Your task to perform on an android device: open app "Speedtest by Ookla" (install if not already installed) and go to login screen Image 0: 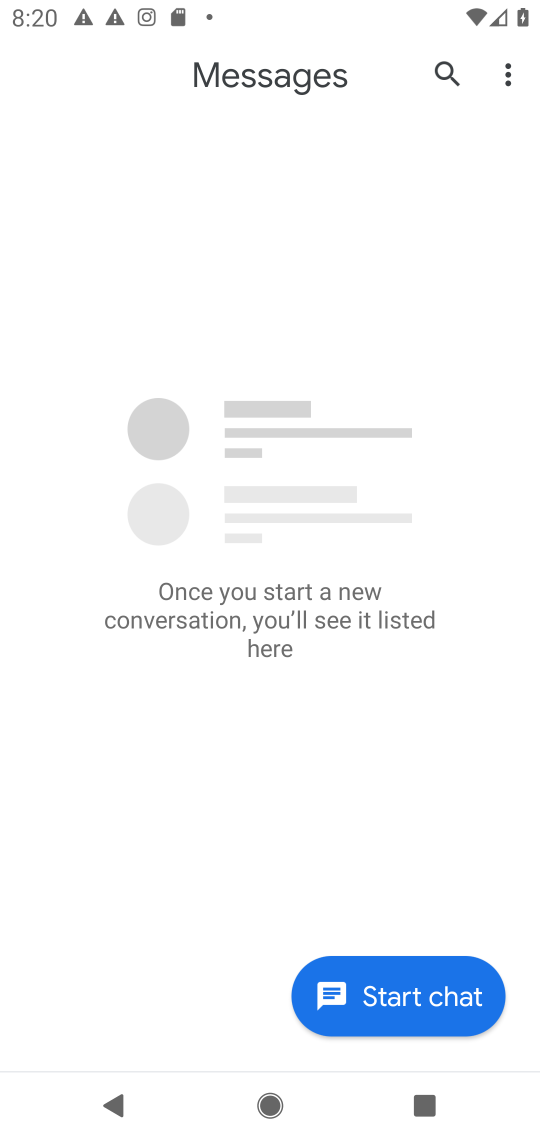
Step 0: press home button
Your task to perform on an android device: open app "Speedtest by Ookla" (install if not already installed) and go to login screen Image 1: 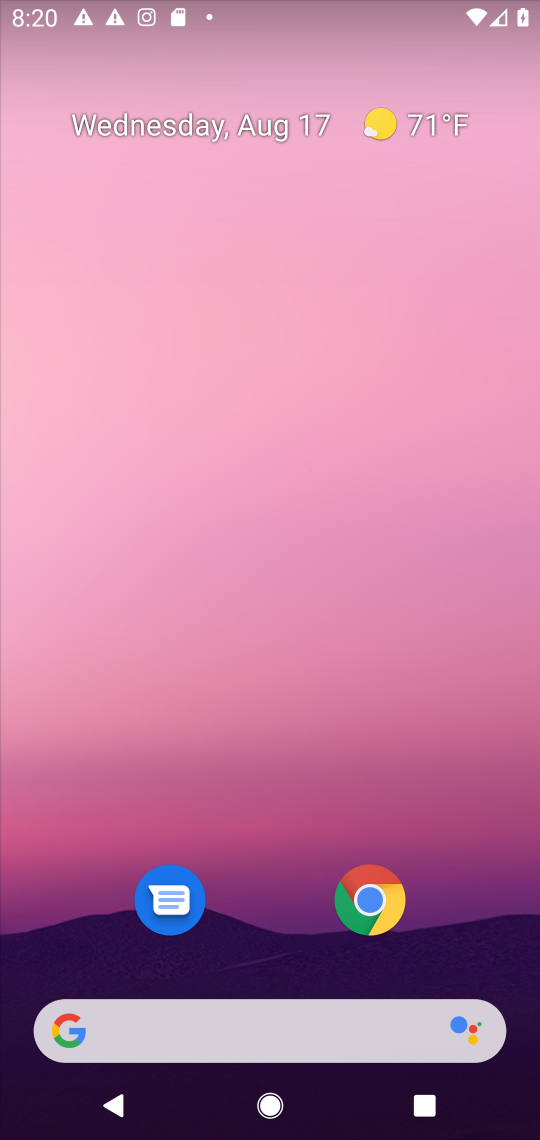
Step 1: drag from (247, 898) to (527, 285)
Your task to perform on an android device: open app "Speedtest by Ookla" (install if not already installed) and go to login screen Image 2: 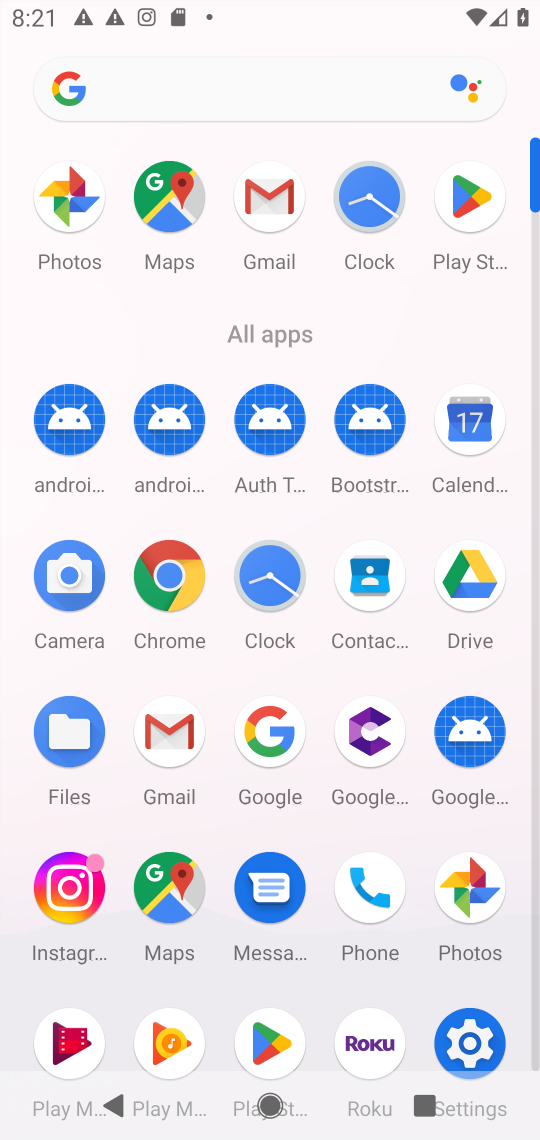
Step 2: click (463, 201)
Your task to perform on an android device: open app "Speedtest by Ookla" (install if not already installed) and go to login screen Image 3: 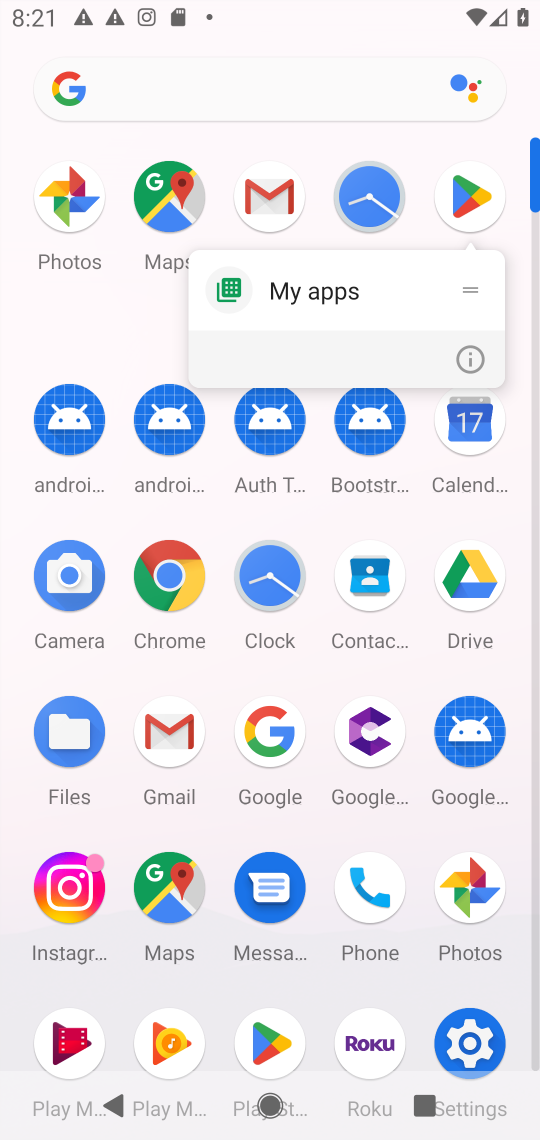
Step 3: click (463, 200)
Your task to perform on an android device: open app "Speedtest by Ookla" (install if not already installed) and go to login screen Image 4: 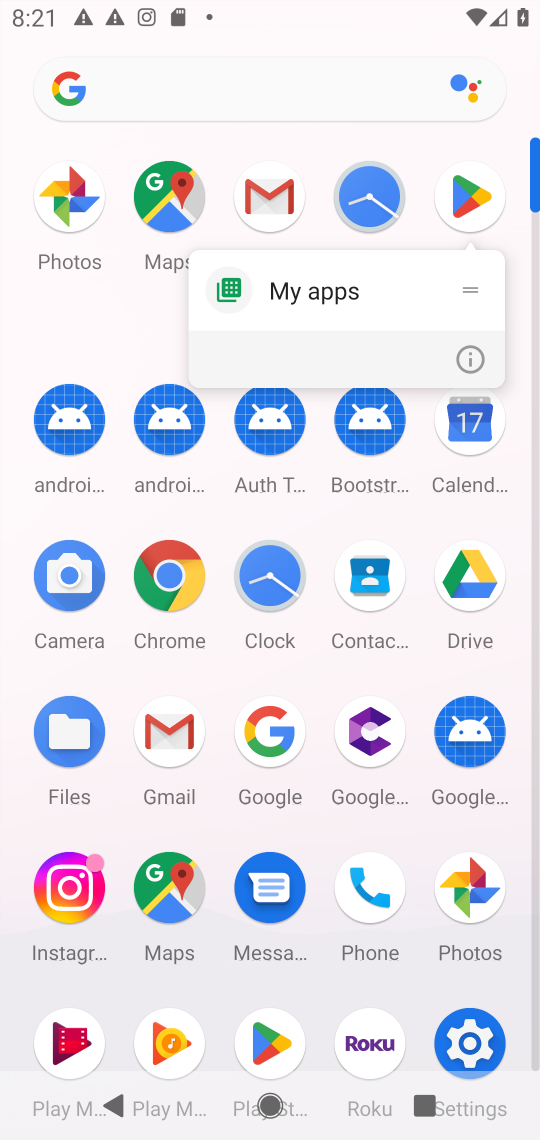
Step 4: click (463, 196)
Your task to perform on an android device: open app "Speedtest by Ookla" (install if not already installed) and go to login screen Image 5: 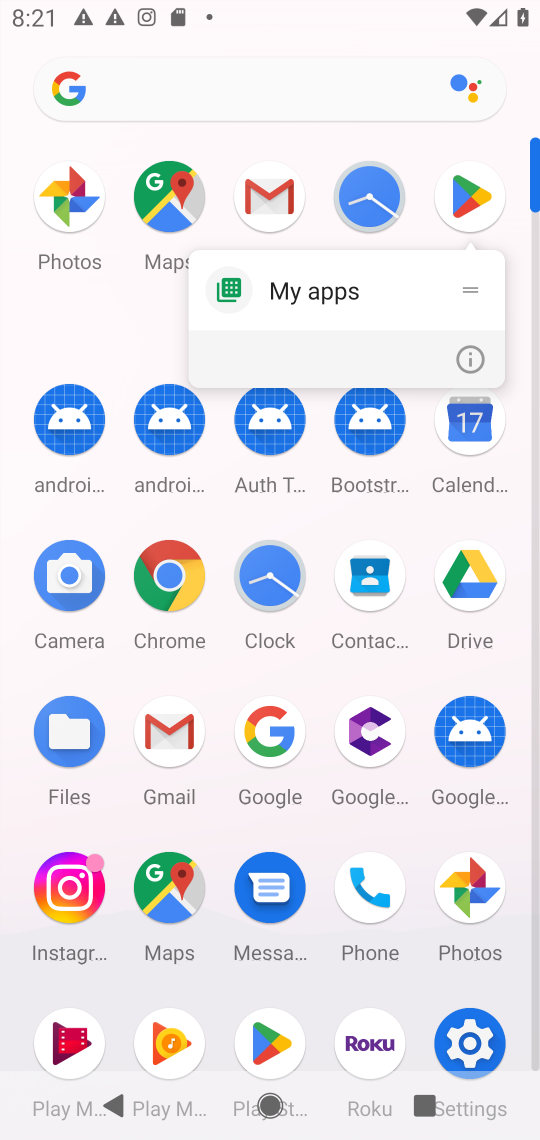
Step 5: click (463, 196)
Your task to perform on an android device: open app "Speedtest by Ookla" (install if not already installed) and go to login screen Image 6: 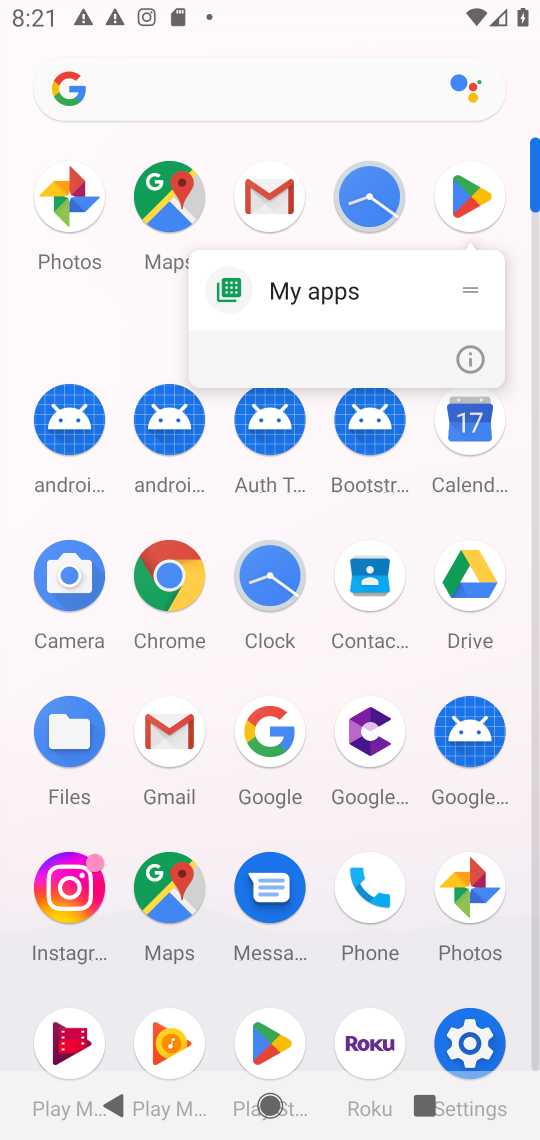
Step 6: click (463, 196)
Your task to perform on an android device: open app "Speedtest by Ookla" (install if not already installed) and go to login screen Image 7: 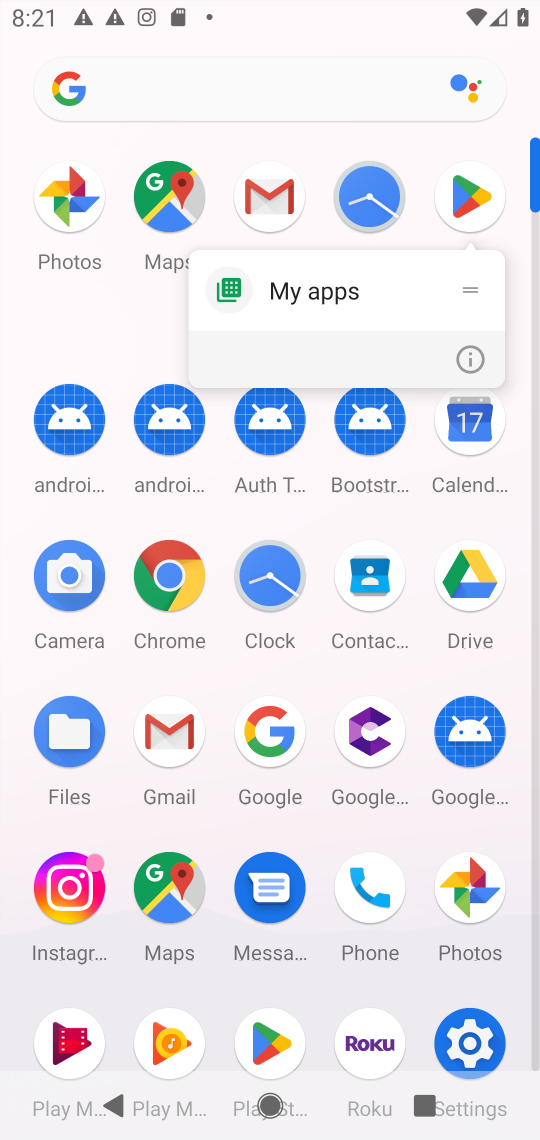
Step 7: click (462, 184)
Your task to perform on an android device: open app "Speedtest by Ookla" (install if not already installed) and go to login screen Image 8: 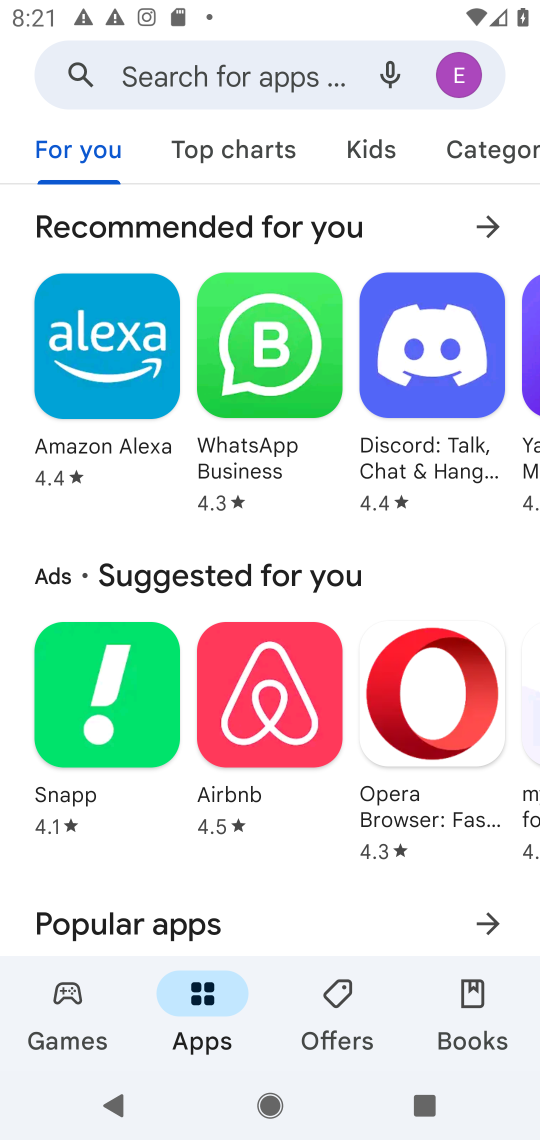
Step 8: click (244, 80)
Your task to perform on an android device: open app "Speedtest by Ookla" (install if not already installed) and go to login screen Image 9: 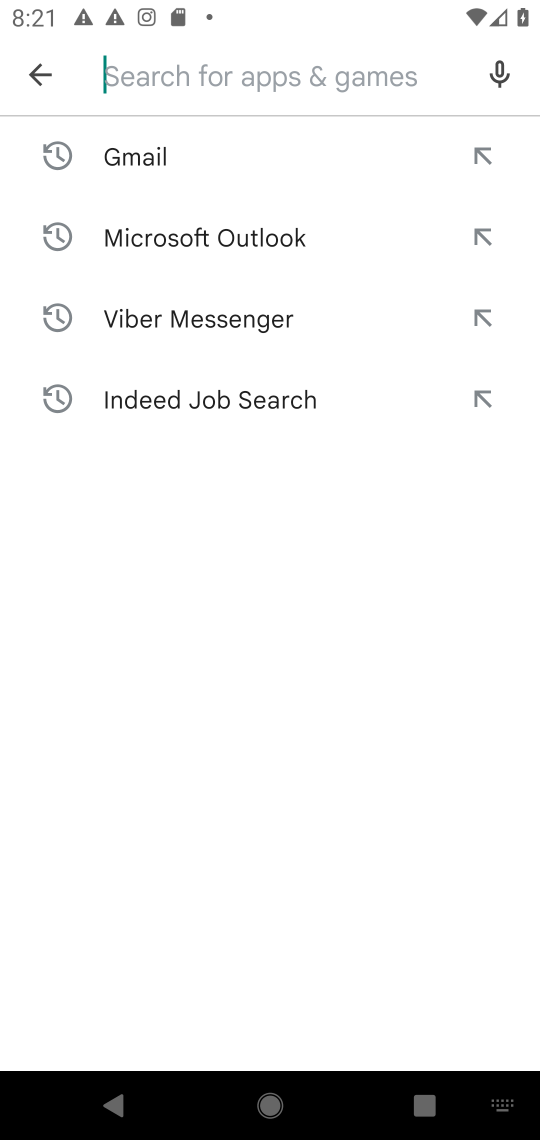
Step 9: type "Speedtest by Ookla"
Your task to perform on an android device: open app "Speedtest by Ookla" (install if not already installed) and go to login screen Image 10: 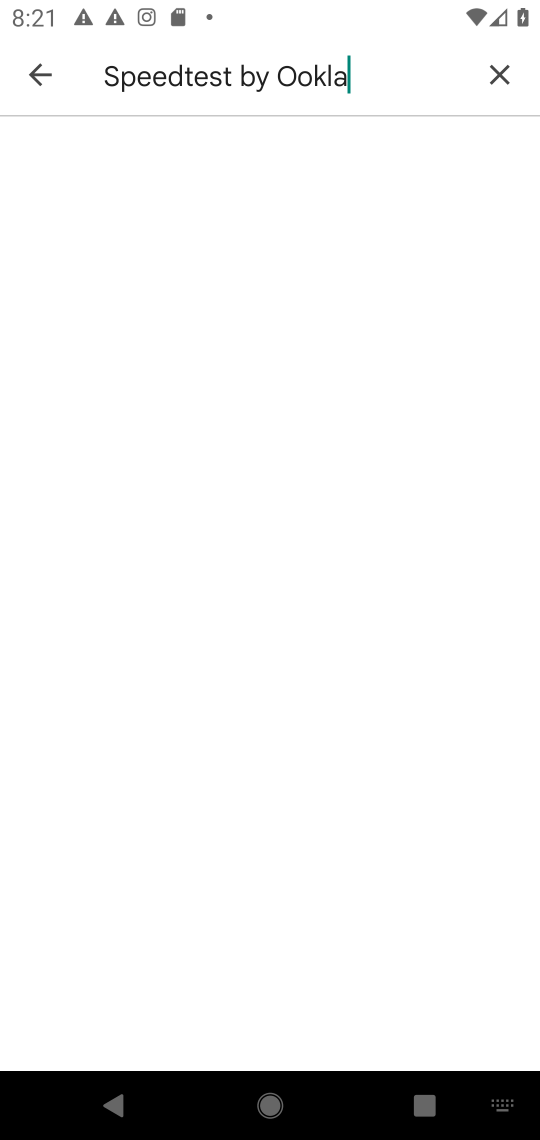
Step 10: press enter
Your task to perform on an android device: open app "Speedtest by Ookla" (install if not already installed) and go to login screen Image 11: 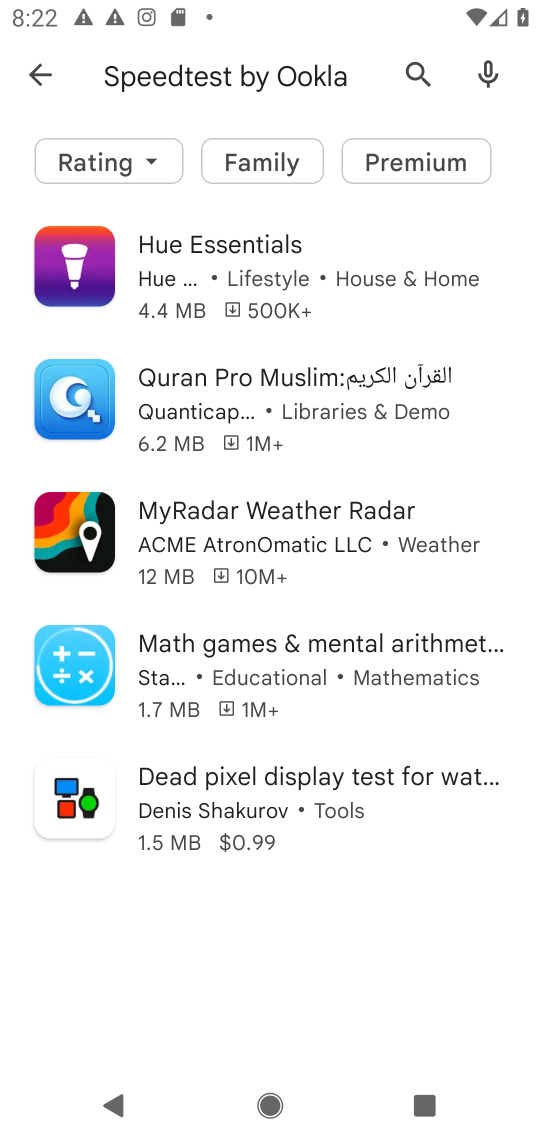
Step 11: task complete